Your task to perform on an android device: Do I have any events this weekend? Image 0: 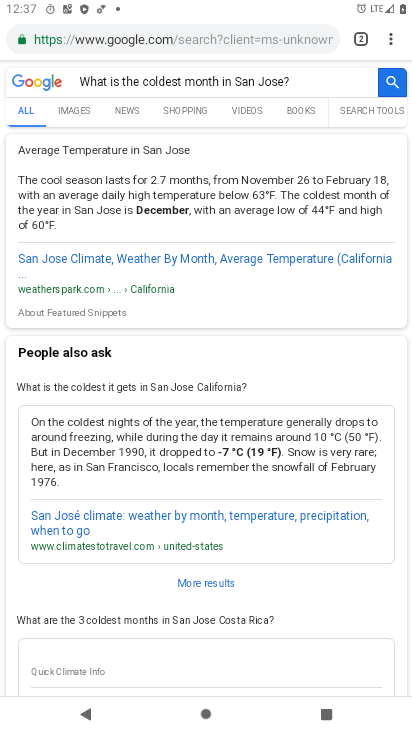
Step 0: press home button
Your task to perform on an android device: Do I have any events this weekend? Image 1: 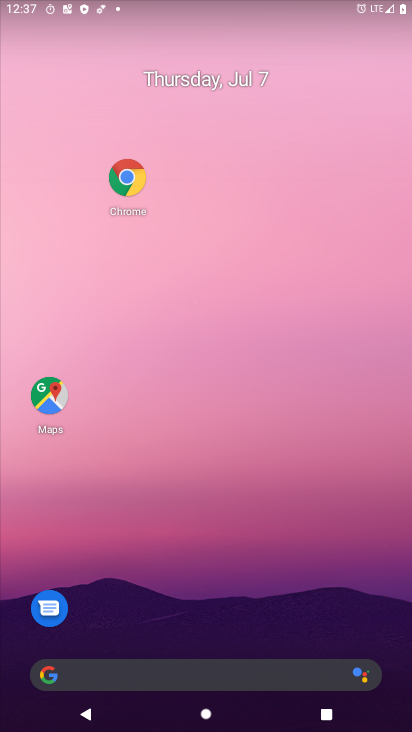
Step 1: drag from (199, 668) to (209, 370)
Your task to perform on an android device: Do I have any events this weekend? Image 2: 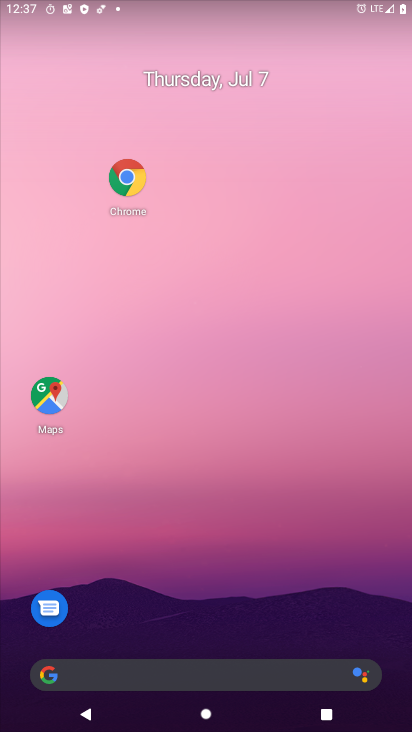
Step 2: drag from (136, 650) to (230, 31)
Your task to perform on an android device: Do I have any events this weekend? Image 3: 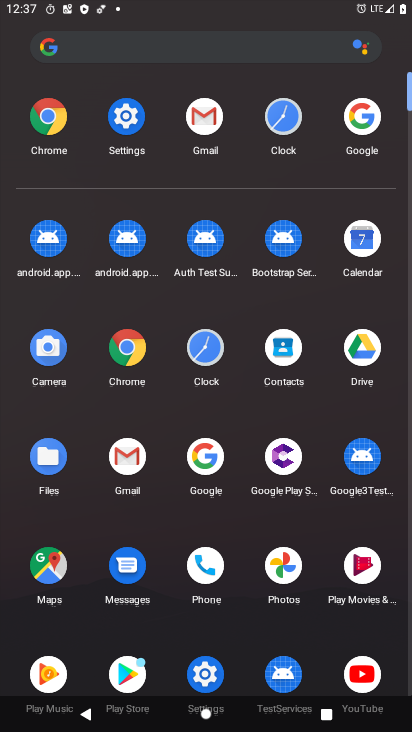
Step 3: click (284, 125)
Your task to perform on an android device: Do I have any events this weekend? Image 4: 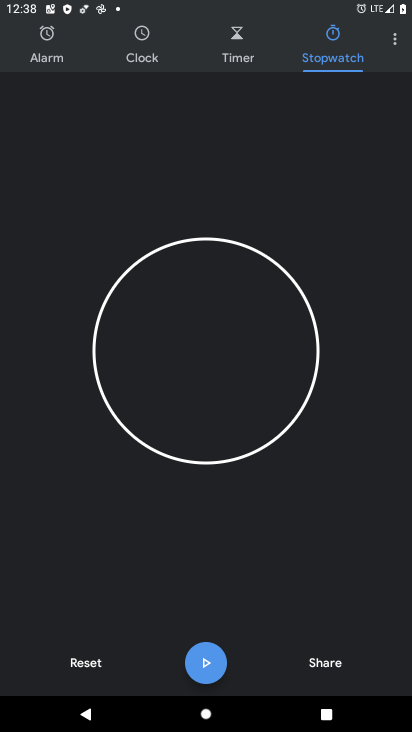
Step 4: press home button
Your task to perform on an android device: Do I have any events this weekend? Image 5: 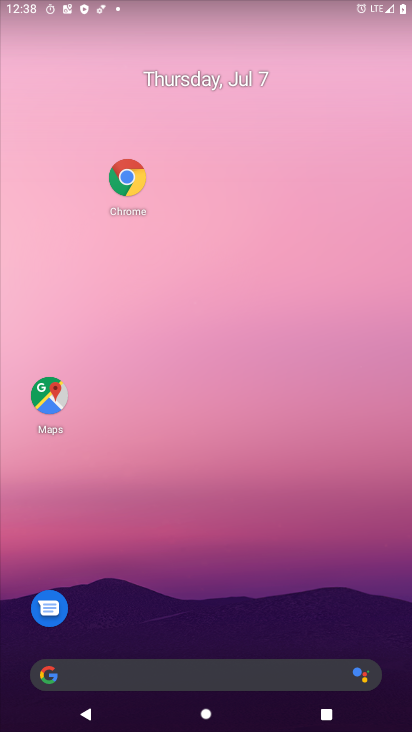
Step 5: click (243, 292)
Your task to perform on an android device: Do I have any events this weekend? Image 6: 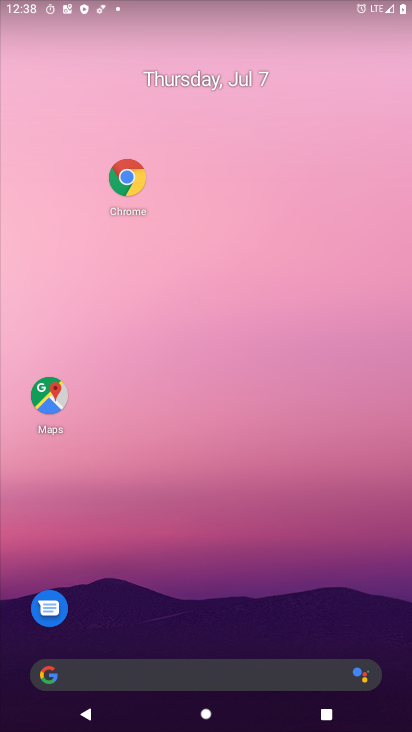
Step 6: drag from (193, 440) to (170, 241)
Your task to perform on an android device: Do I have any events this weekend? Image 7: 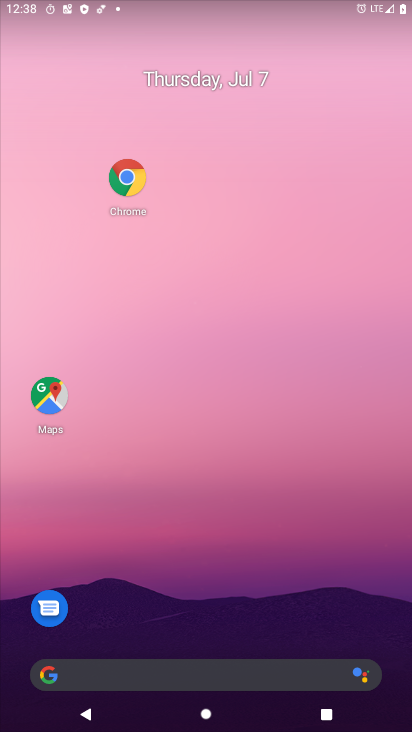
Step 7: drag from (169, 666) to (164, 249)
Your task to perform on an android device: Do I have any events this weekend? Image 8: 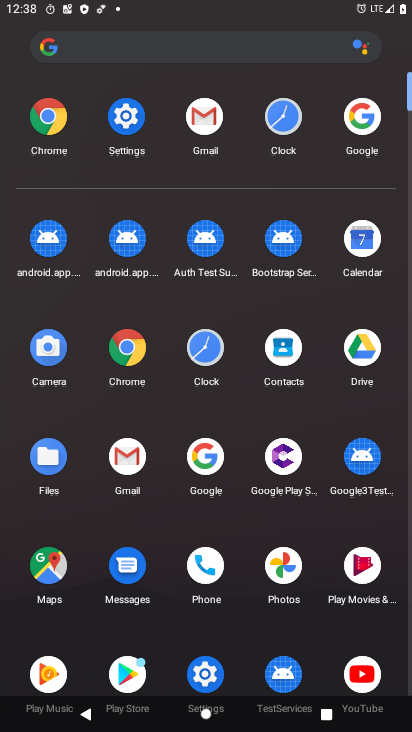
Step 8: click (352, 243)
Your task to perform on an android device: Do I have any events this weekend? Image 9: 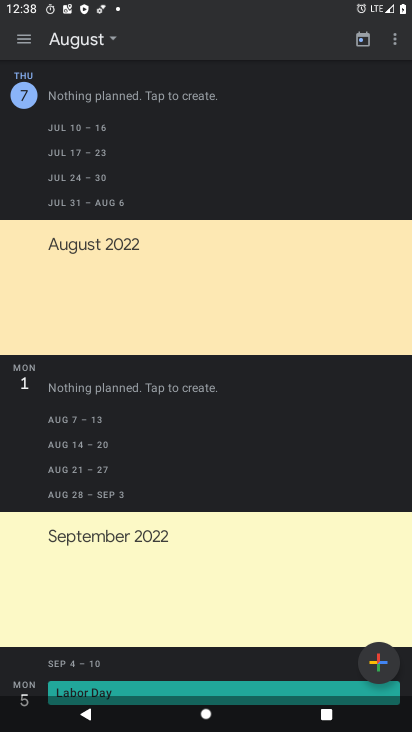
Step 9: click (83, 26)
Your task to perform on an android device: Do I have any events this weekend? Image 10: 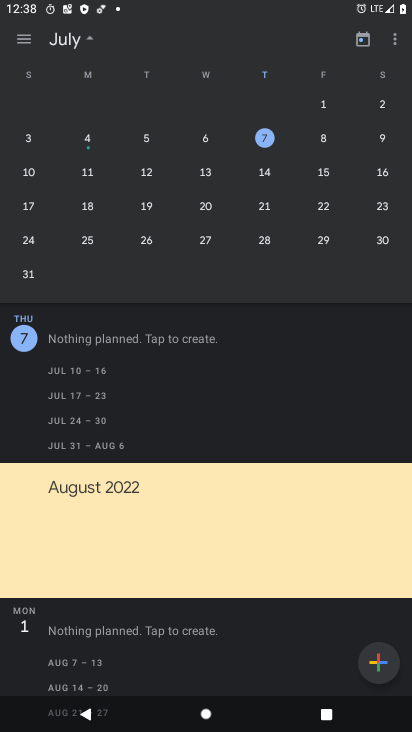
Step 10: click (368, 162)
Your task to perform on an android device: Do I have any events this weekend? Image 11: 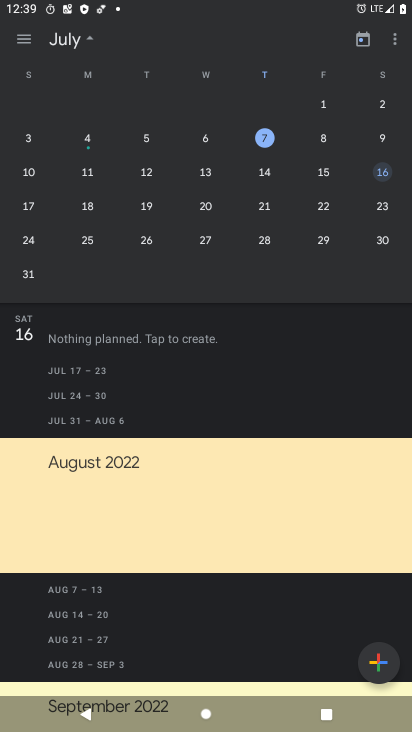
Step 11: task complete